Your task to perform on an android device: visit the assistant section in the google photos Image 0: 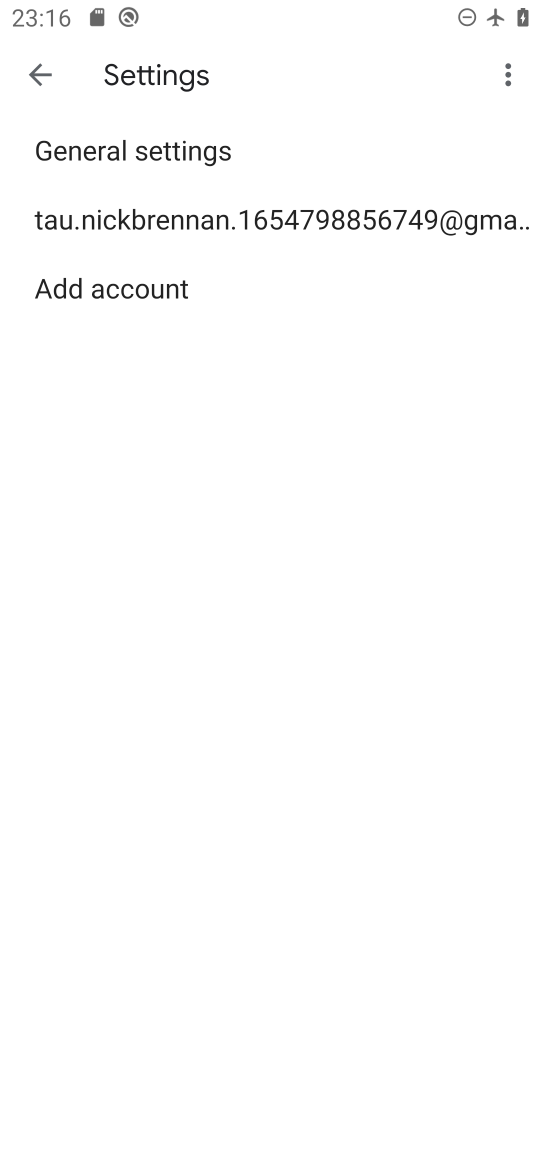
Step 0: press home button
Your task to perform on an android device: visit the assistant section in the google photos Image 1: 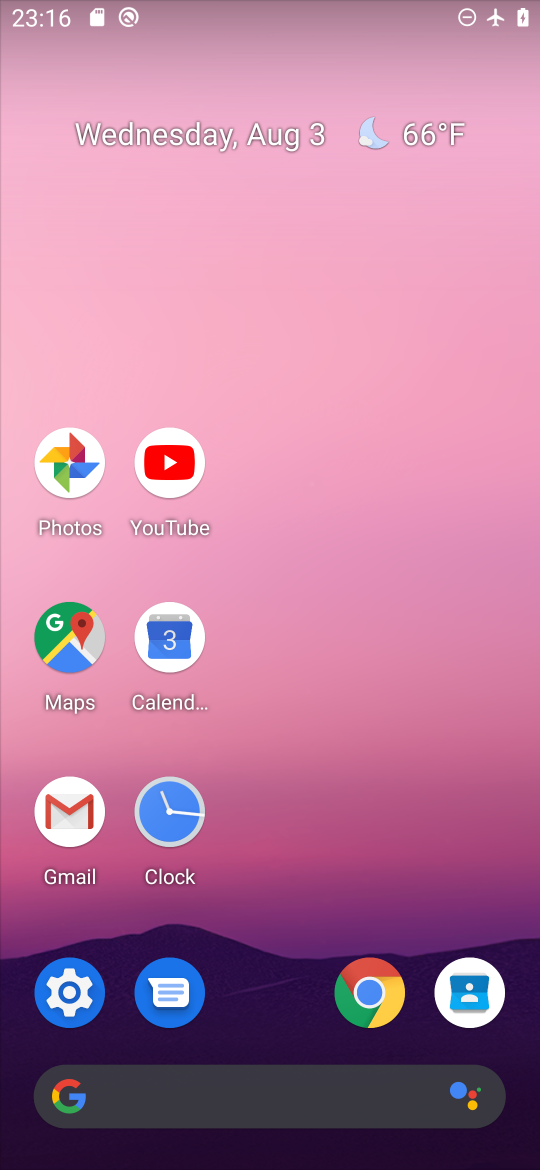
Step 1: click (71, 464)
Your task to perform on an android device: visit the assistant section in the google photos Image 2: 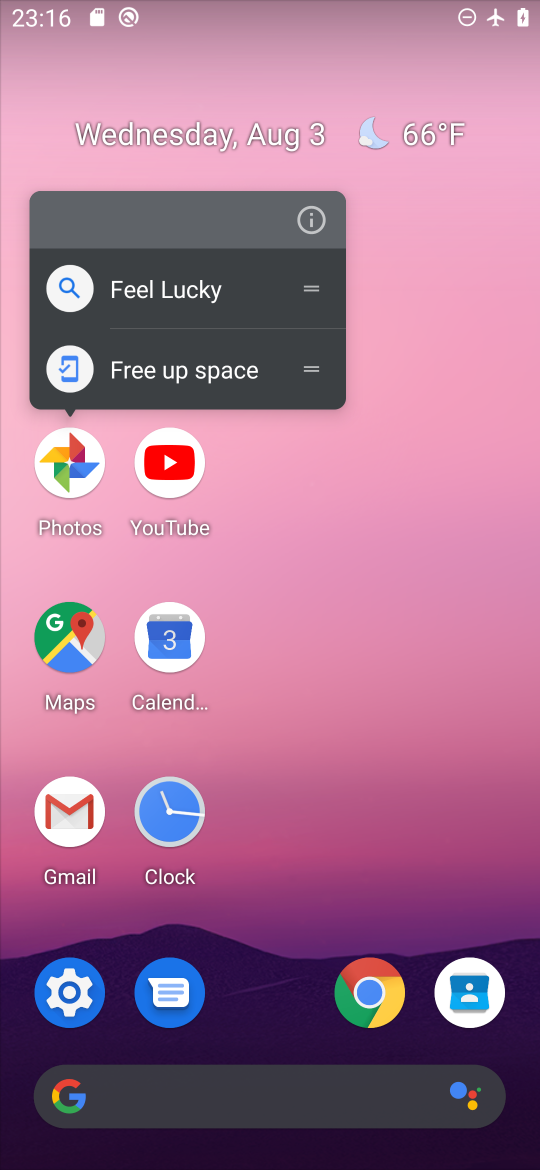
Step 2: click (71, 464)
Your task to perform on an android device: visit the assistant section in the google photos Image 3: 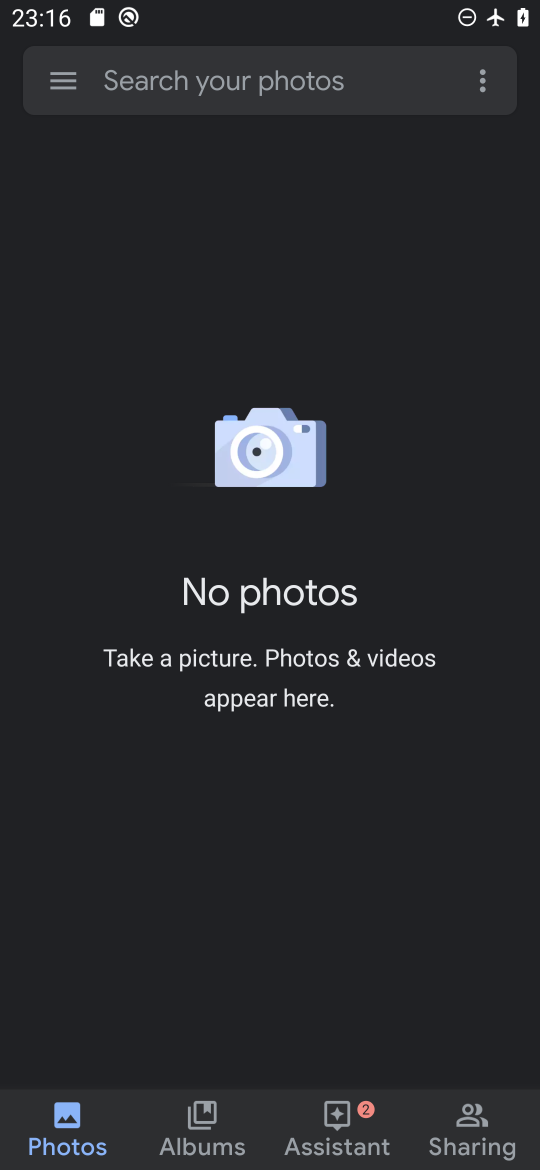
Step 3: click (336, 1110)
Your task to perform on an android device: visit the assistant section in the google photos Image 4: 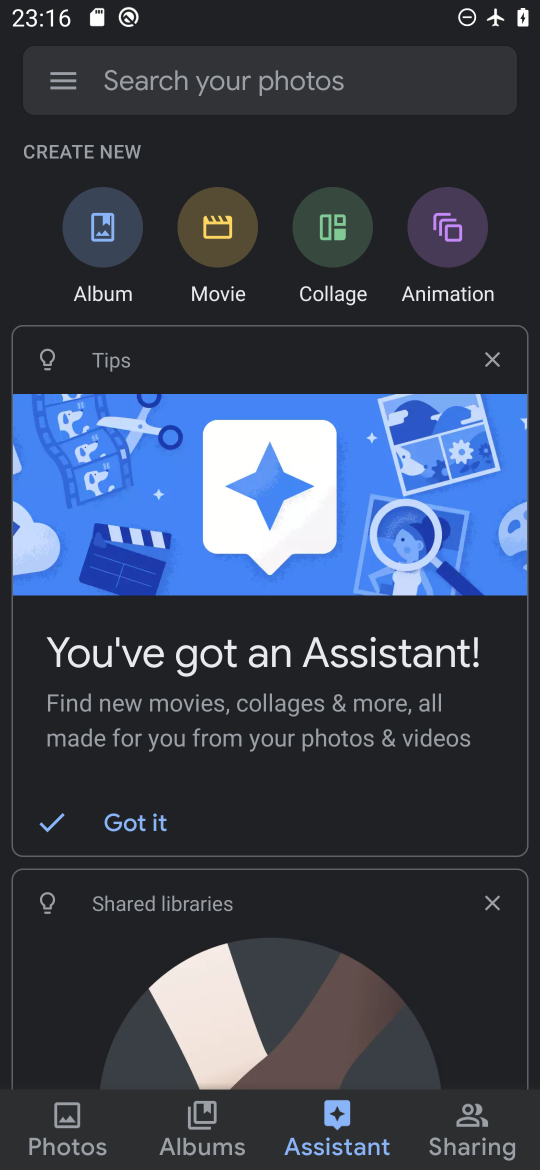
Step 4: task complete